Your task to perform on an android device: What's the weather going to be tomorrow? Image 0: 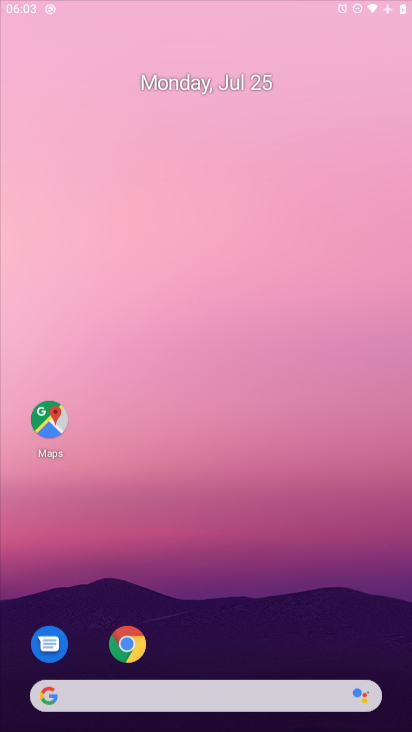
Step 0: press home button
Your task to perform on an android device: What's the weather going to be tomorrow? Image 1: 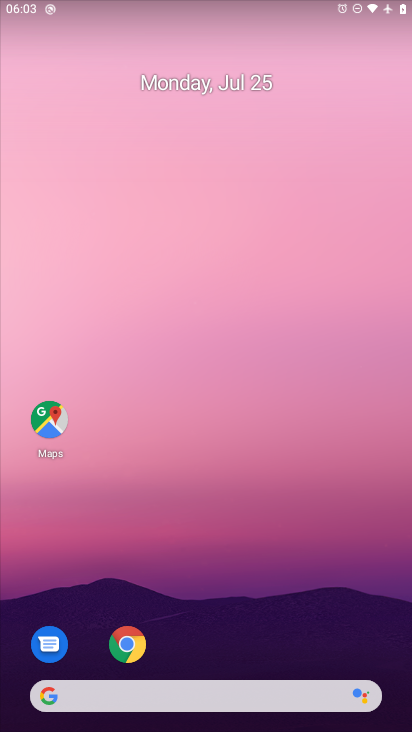
Step 1: click (46, 701)
Your task to perform on an android device: What's the weather going to be tomorrow? Image 2: 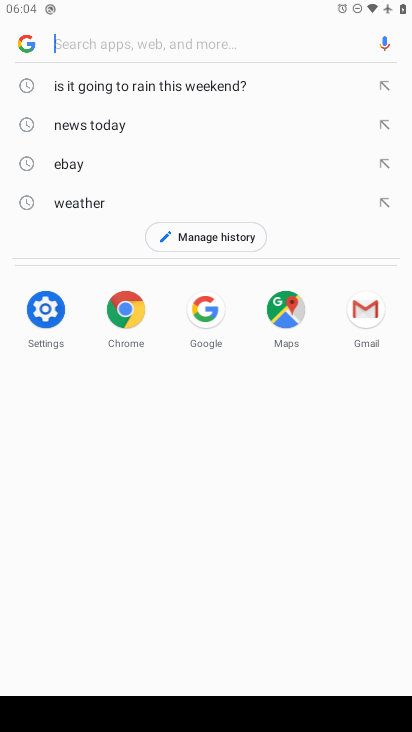
Step 2: type " weather going to be tomorrow?"
Your task to perform on an android device: What's the weather going to be tomorrow? Image 3: 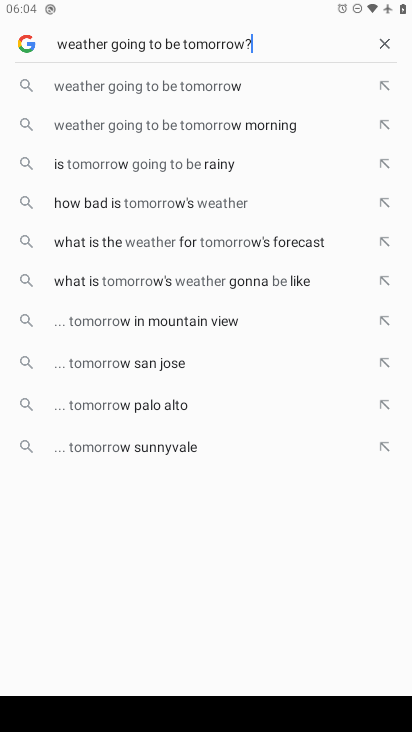
Step 3: press enter
Your task to perform on an android device: What's the weather going to be tomorrow? Image 4: 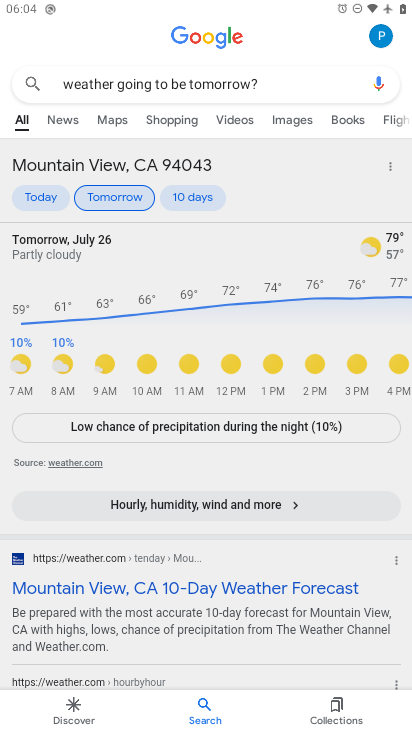
Step 4: task complete